Your task to perform on an android device: Open settings Image 0: 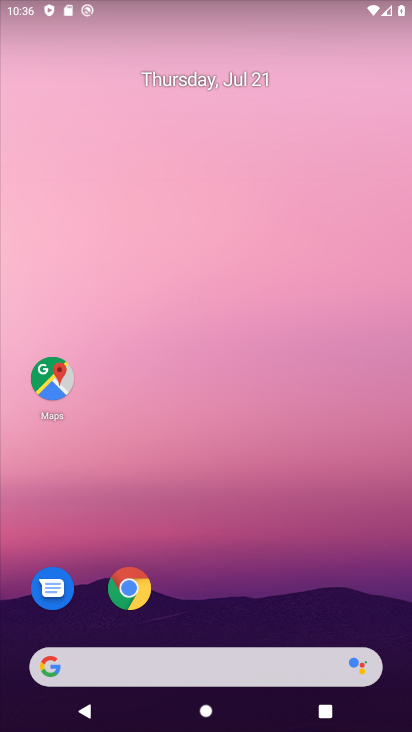
Step 0: click (295, 284)
Your task to perform on an android device: Open settings Image 1: 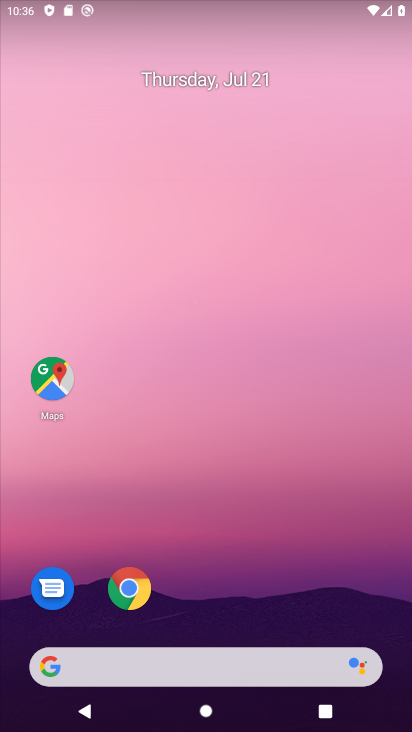
Step 1: click (259, 268)
Your task to perform on an android device: Open settings Image 2: 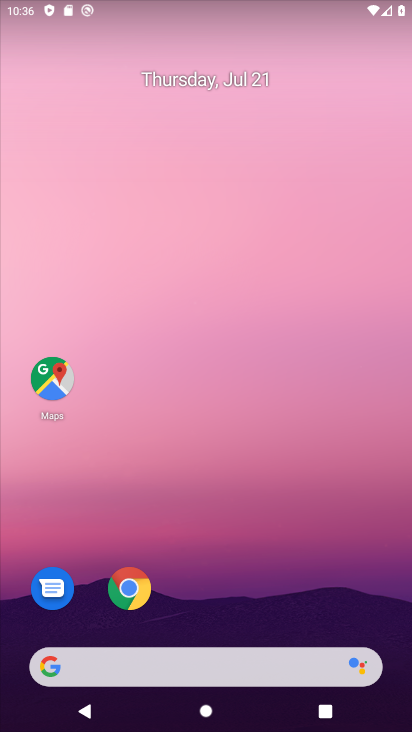
Step 2: drag from (187, 603) to (194, 230)
Your task to perform on an android device: Open settings Image 3: 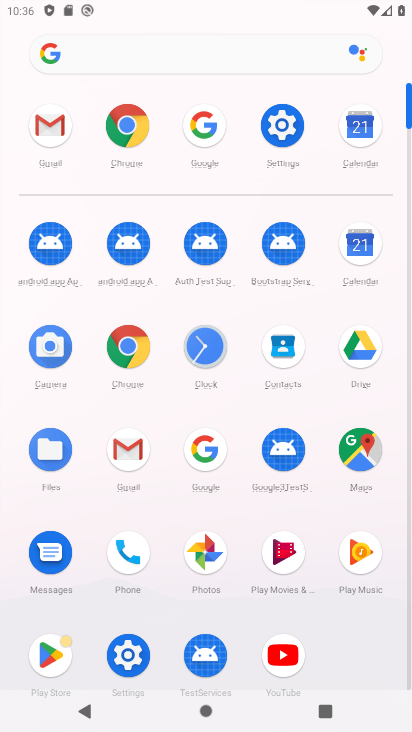
Step 3: click (290, 118)
Your task to perform on an android device: Open settings Image 4: 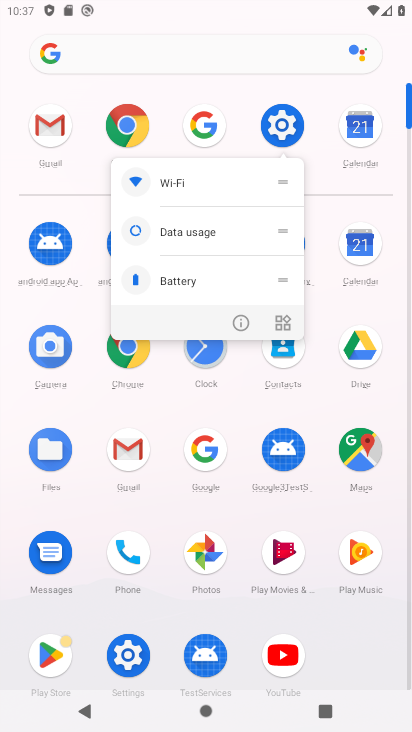
Step 4: click (237, 316)
Your task to perform on an android device: Open settings Image 5: 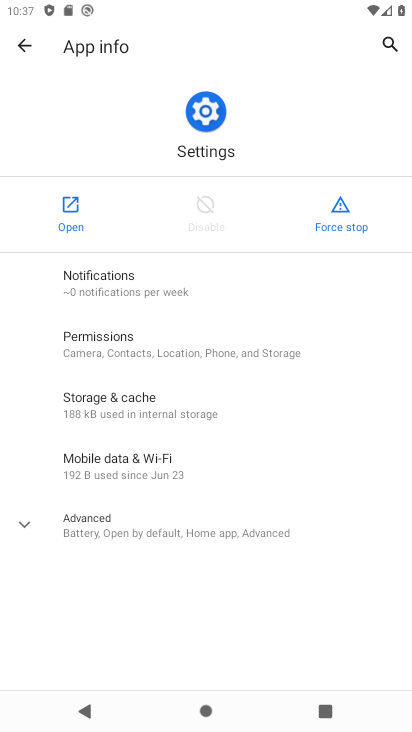
Step 5: click (70, 207)
Your task to perform on an android device: Open settings Image 6: 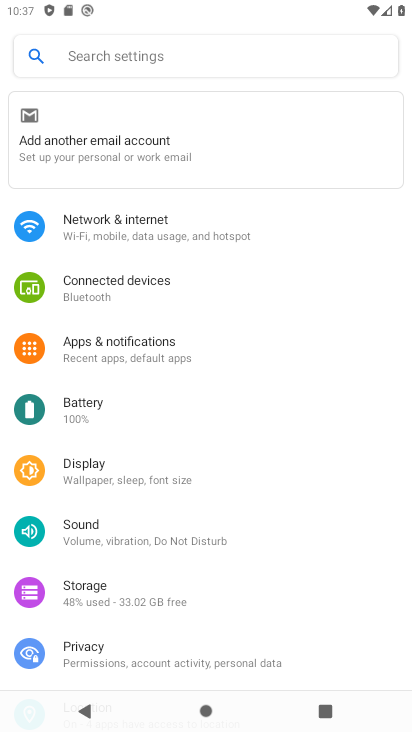
Step 6: task complete